Your task to perform on an android device: toggle translation in the chrome app Image 0: 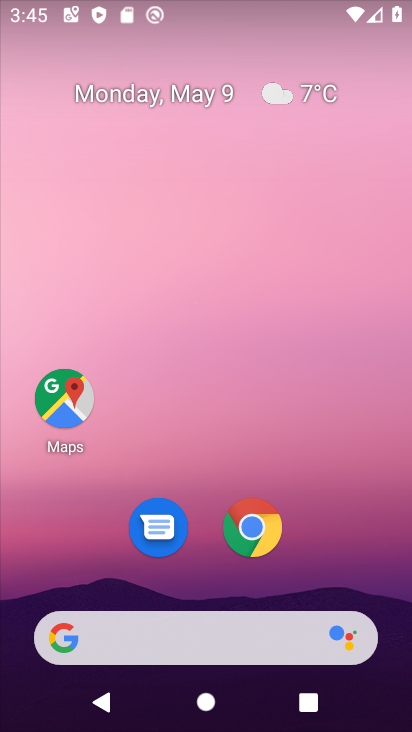
Step 0: click (250, 531)
Your task to perform on an android device: toggle translation in the chrome app Image 1: 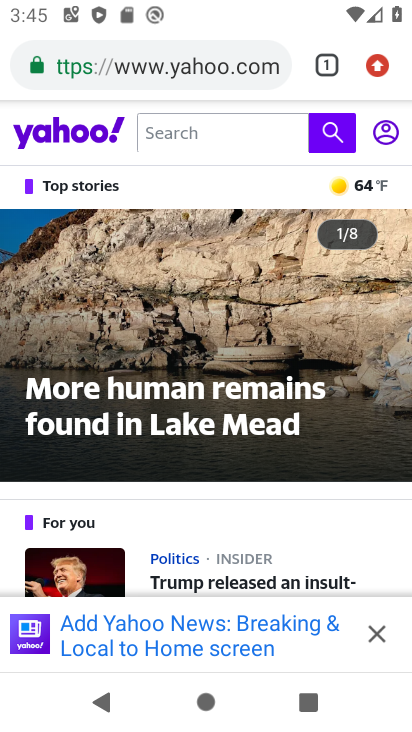
Step 1: click (359, 57)
Your task to perform on an android device: toggle translation in the chrome app Image 2: 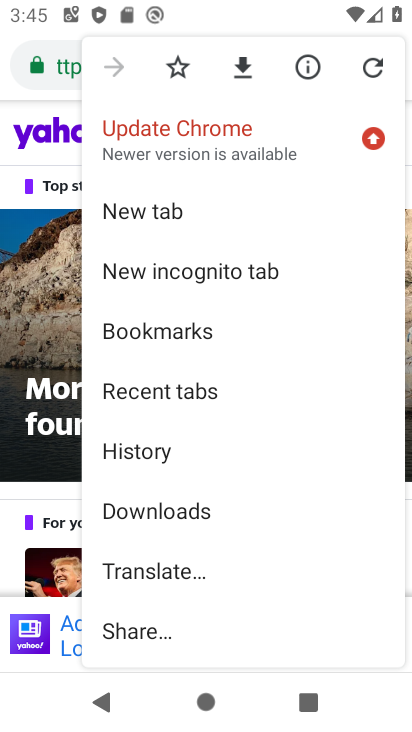
Step 2: drag from (172, 590) to (207, 260)
Your task to perform on an android device: toggle translation in the chrome app Image 3: 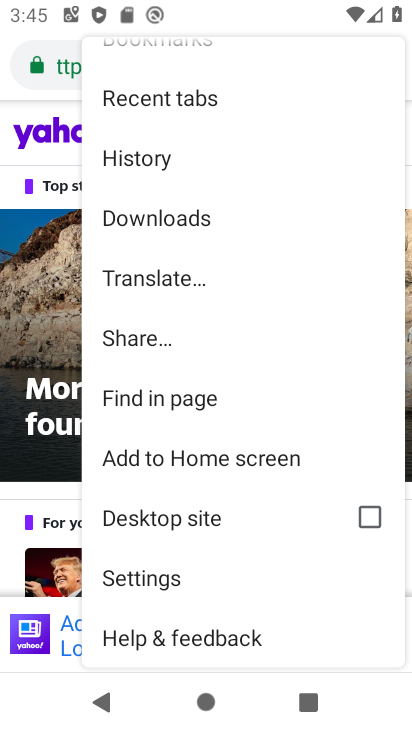
Step 3: click (197, 585)
Your task to perform on an android device: toggle translation in the chrome app Image 4: 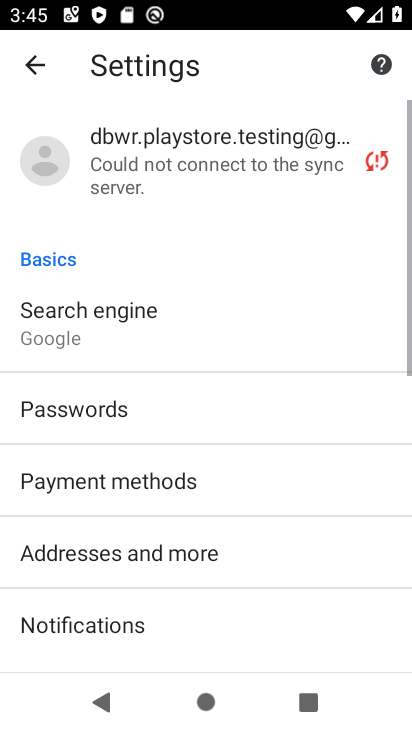
Step 4: drag from (214, 525) to (234, 303)
Your task to perform on an android device: toggle translation in the chrome app Image 5: 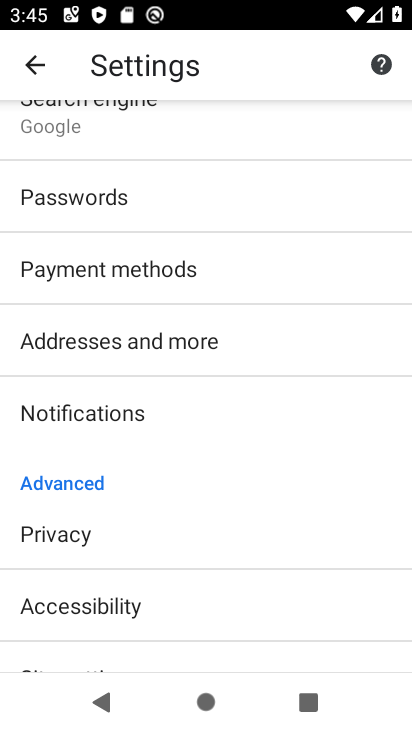
Step 5: drag from (183, 563) to (238, 268)
Your task to perform on an android device: toggle translation in the chrome app Image 6: 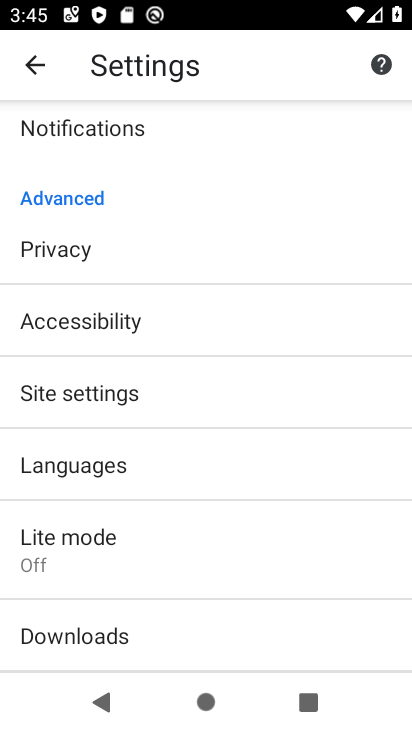
Step 6: click (162, 470)
Your task to perform on an android device: toggle translation in the chrome app Image 7: 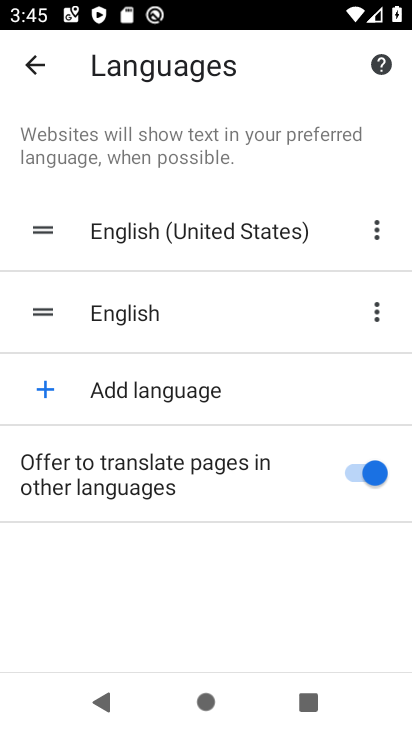
Step 7: click (364, 463)
Your task to perform on an android device: toggle translation in the chrome app Image 8: 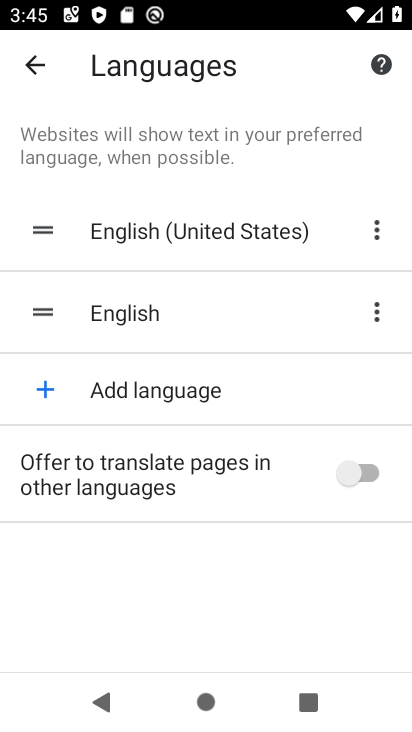
Step 8: click (364, 463)
Your task to perform on an android device: toggle translation in the chrome app Image 9: 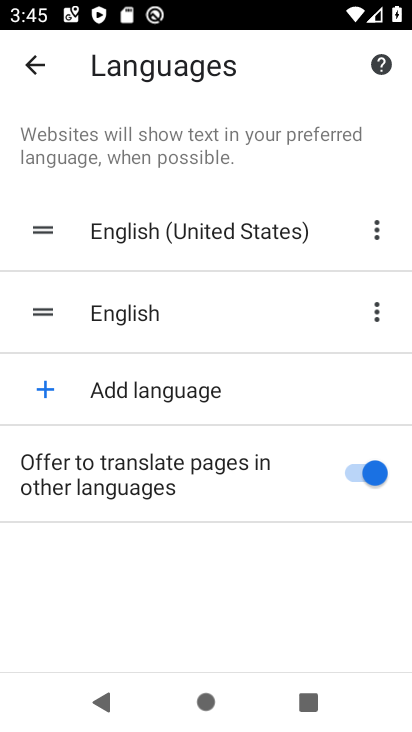
Step 9: task complete